Your task to perform on an android device: turn off sleep mode Image 0: 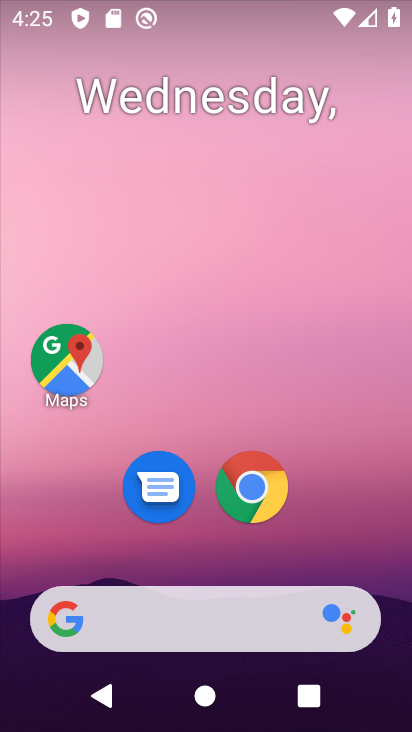
Step 0: drag from (386, 518) to (157, 57)
Your task to perform on an android device: turn off sleep mode Image 1: 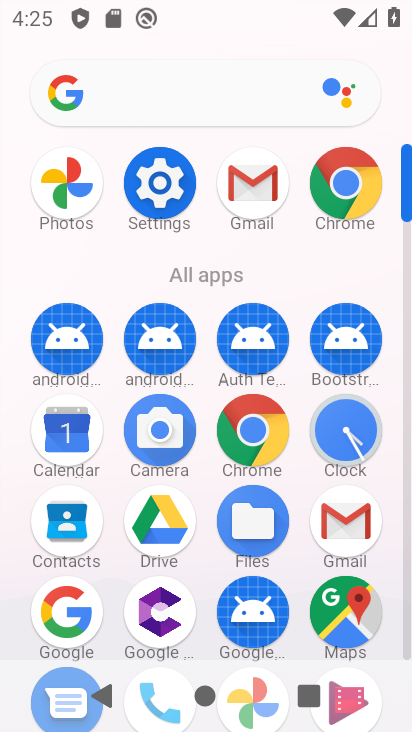
Step 1: click (154, 191)
Your task to perform on an android device: turn off sleep mode Image 2: 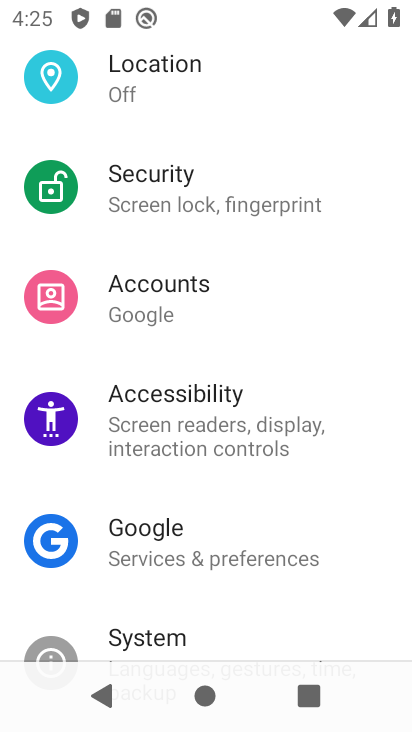
Step 2: drag from (212, 538) to (113, 60)
Your task to perform on an android device: turn off sleep mode Image 3: 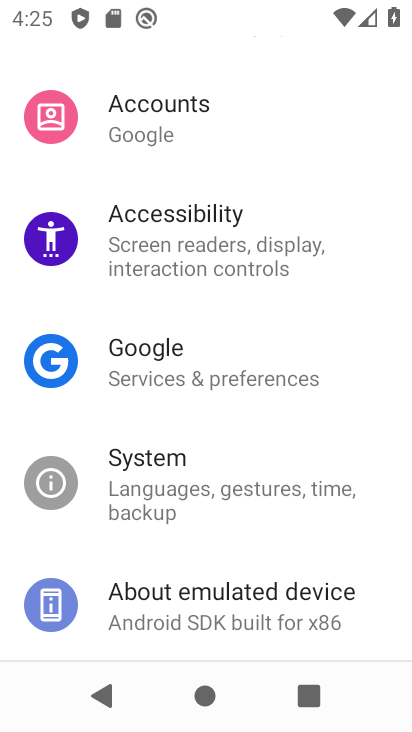
Step 3: drag from (172, 171) to (263, 681)
Your task to perform on an android device: turn off sleep mode Image 4: 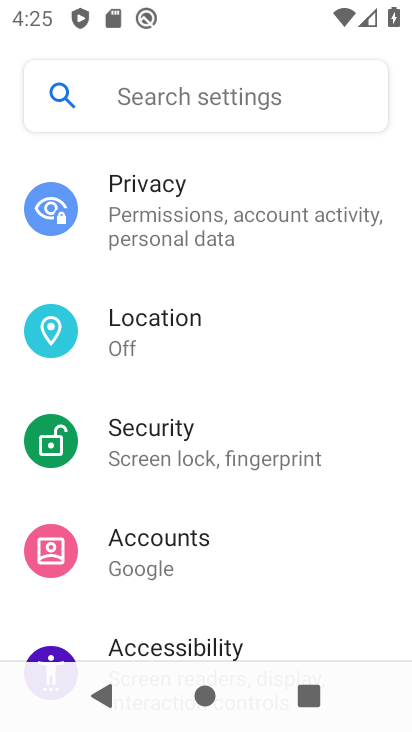
Step 4: drag from (189, 559) to (112, 165)
Your task to perform on an android device: turn off sleep mode Image 5: 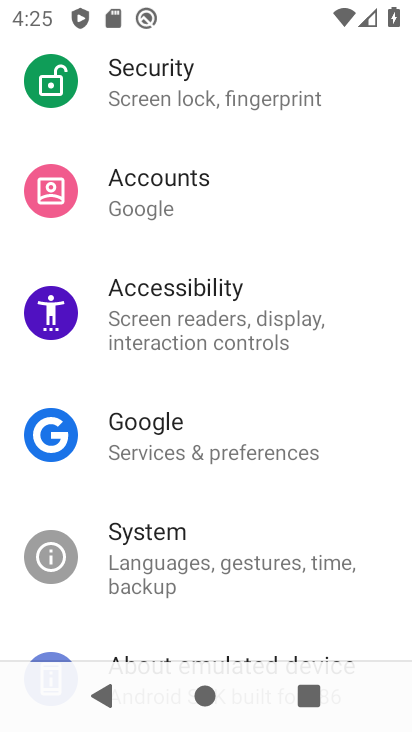
Step 5: drag from (186, 189) to (246, 596)
Your task to perform on an android device: turn off sleep mode Image 6: 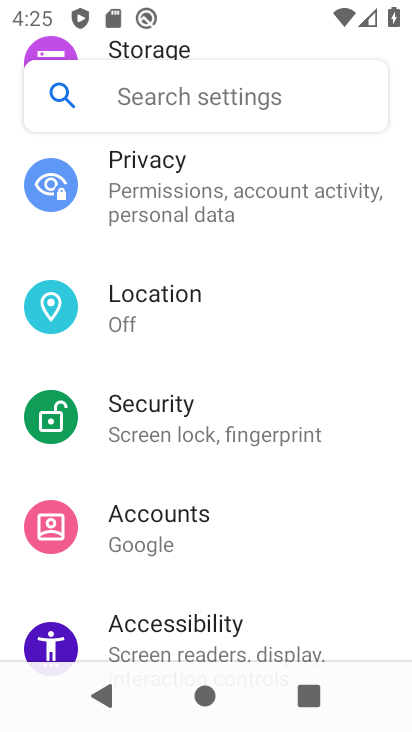
Step 6: drag from (173, 239) to (218, 572)
Your task to perform on an android device: turn off sleep mode Image 7: 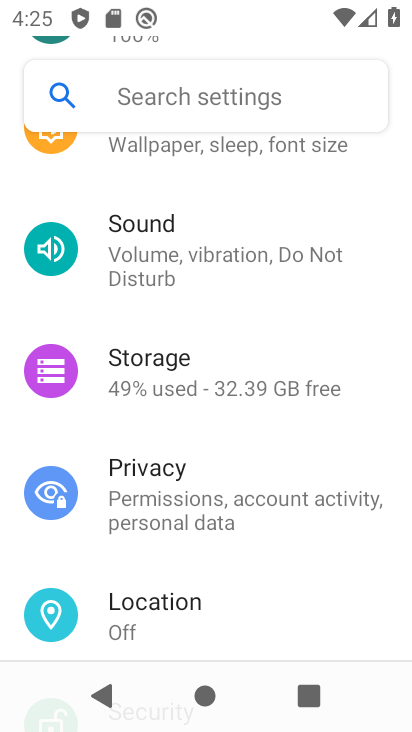
Step 7: drag from (163, 278) to (205, 584)
Your task to perform on an android device: turn off sleep mode Image 8: 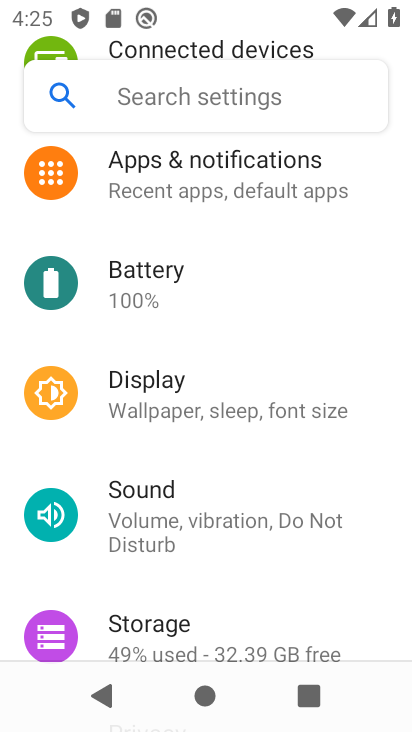
Step 8: click (173, 405)
Your task to perform on an android device: turn off sleep mode Image 9: 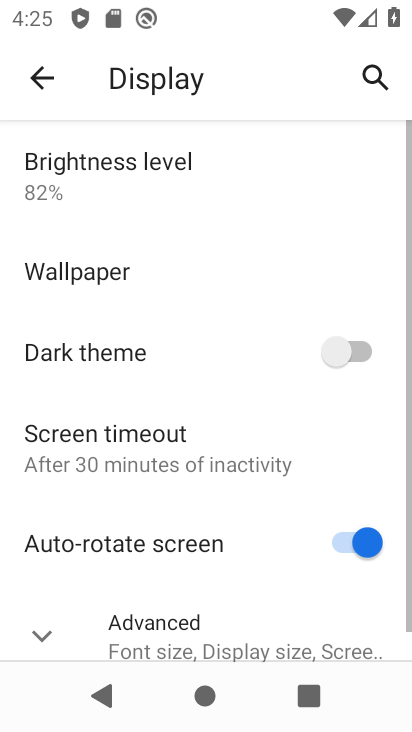
Step 9: click (145, 437)
Your task to perform on an android device: turn off sleep mode Image 10: 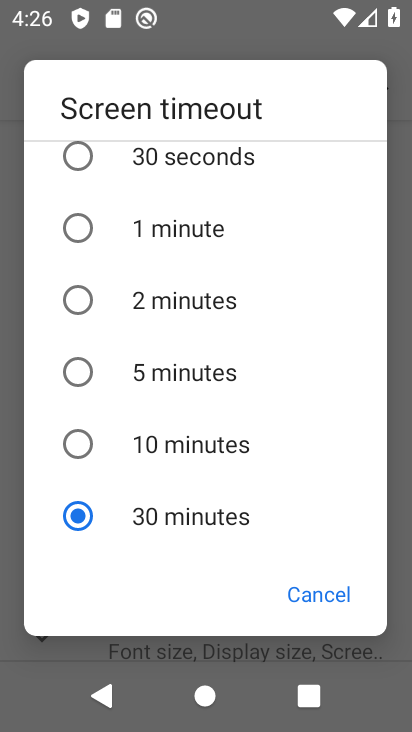
Step 10: task complete